Your task to perform on an android device: Go to wifi settings Image 0: 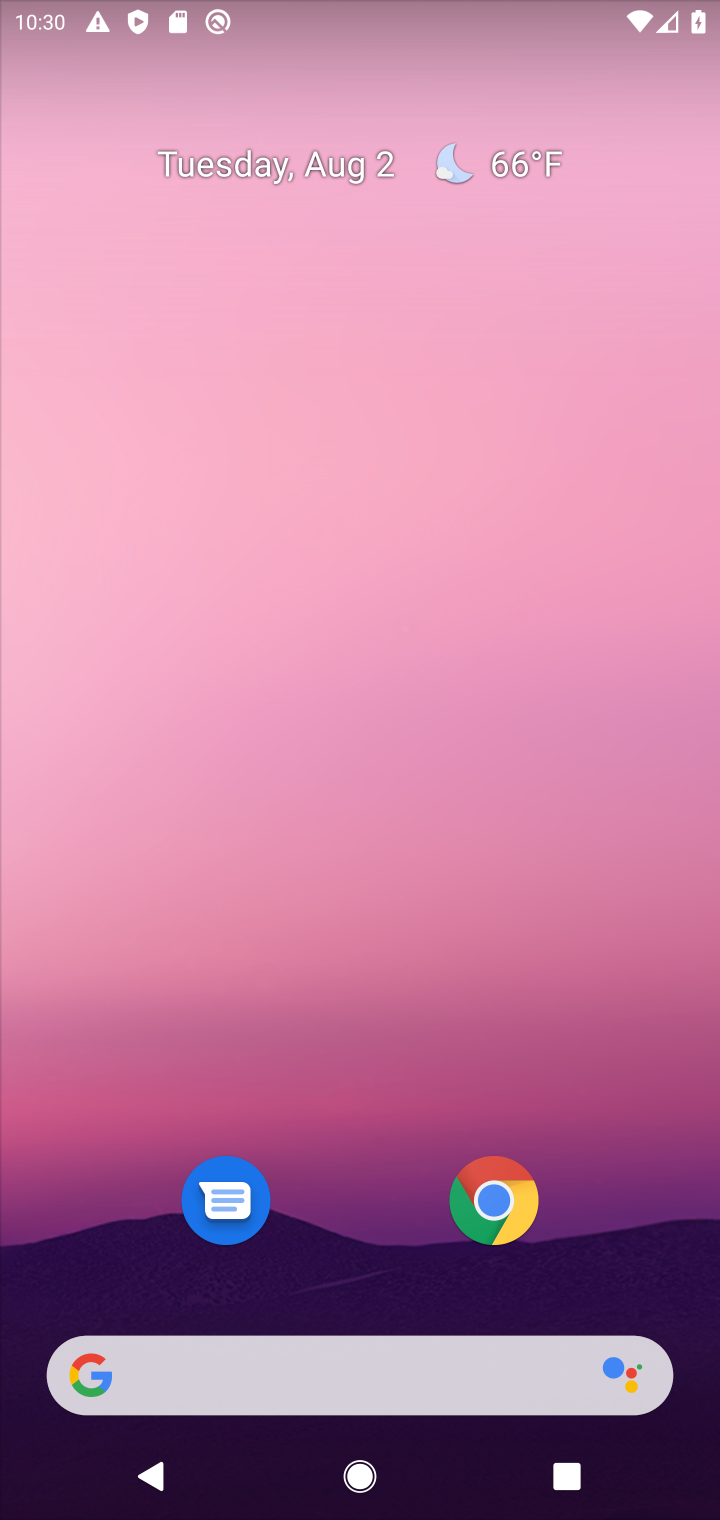
Step 0: drag from (673, 1292) to (550, 278)
Your task to perform on an android device: Go to wifi settings Image 1: 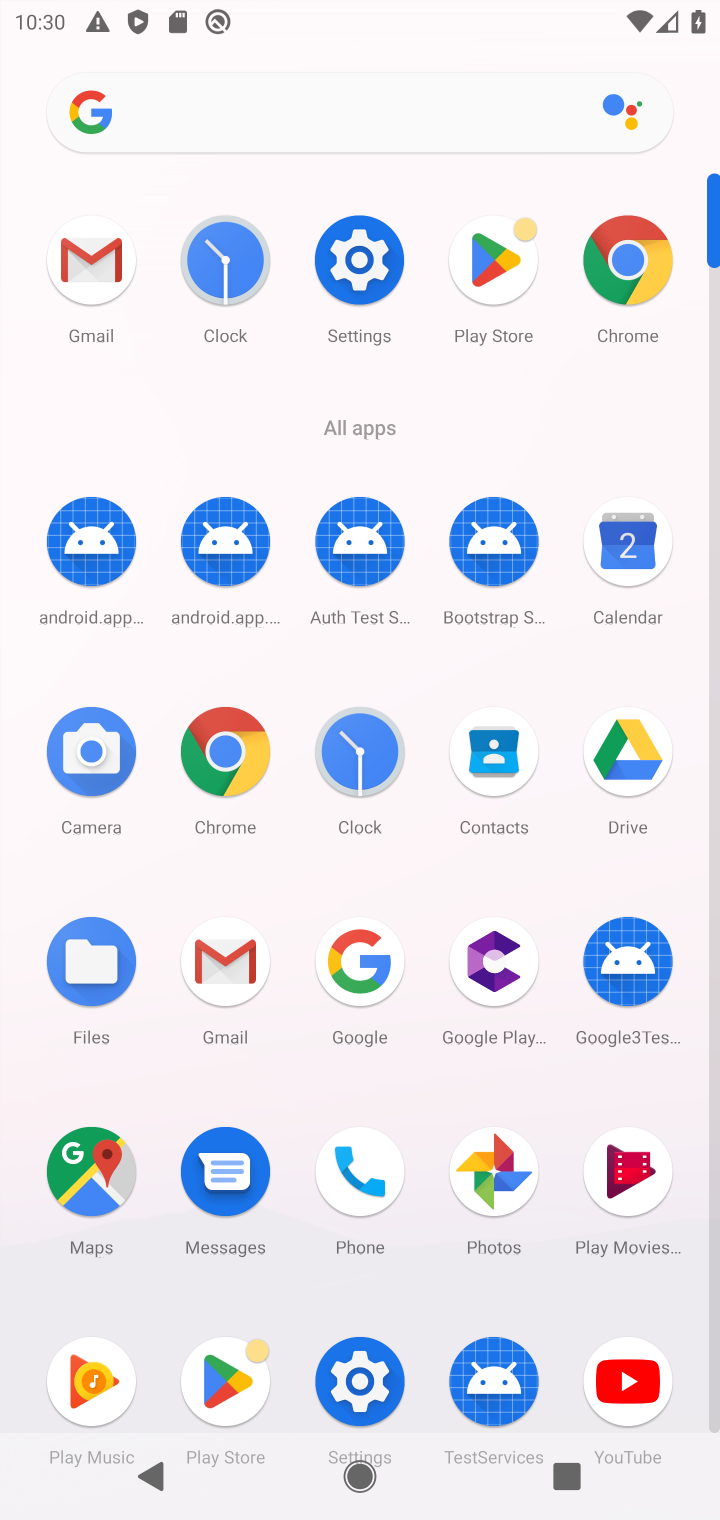
Step 1: click (361, 1384)
Your task to perform on an android device: Go to wifi settings Image 2: 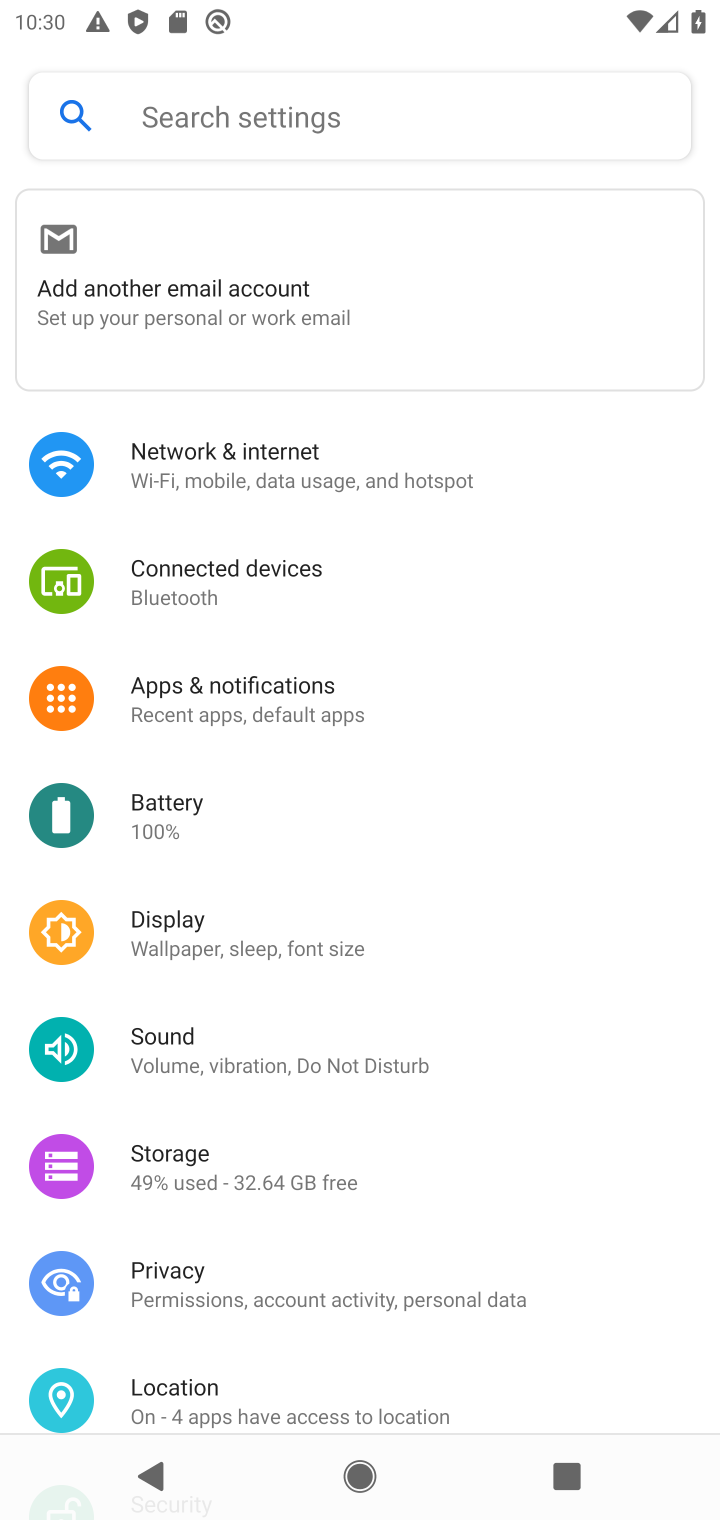
Step 2: click (204, 459)
Your task to perform on an android device: Go to wifi settings Image 3: 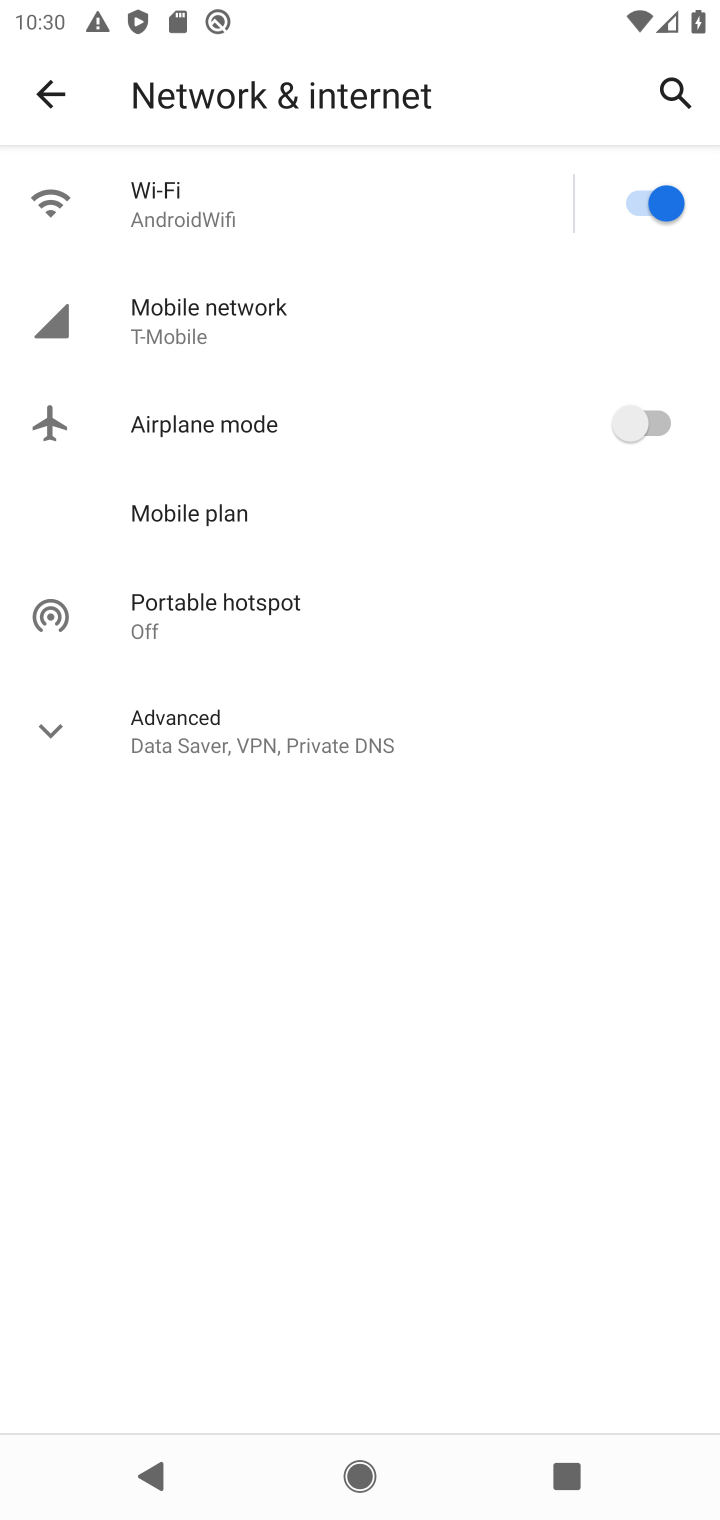
Step 3: click (126, 195)
Your task to perform on an android device: Go to wifi settings Image 4: 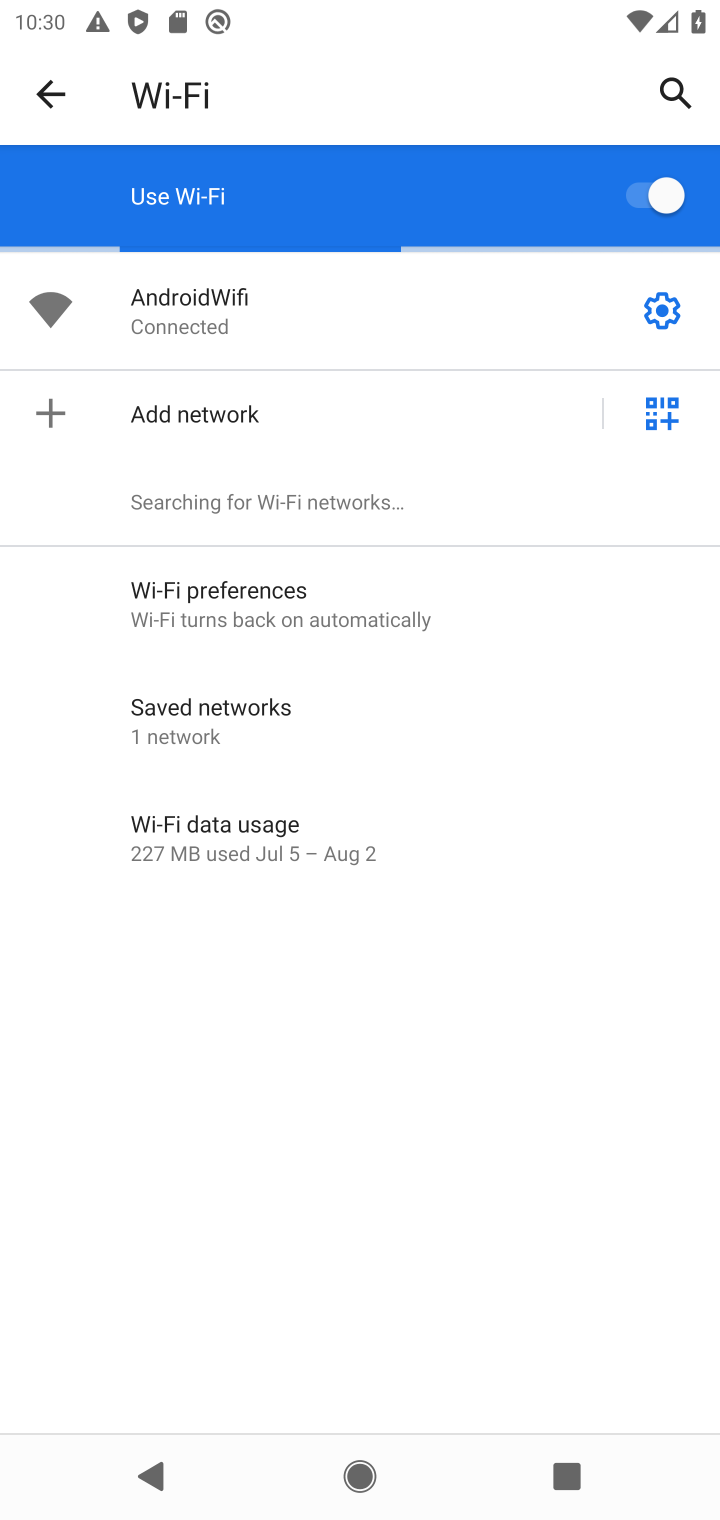
Step 4: click (660, 317)
Your task to perform on an android device: Go to wifi settings Image 5: 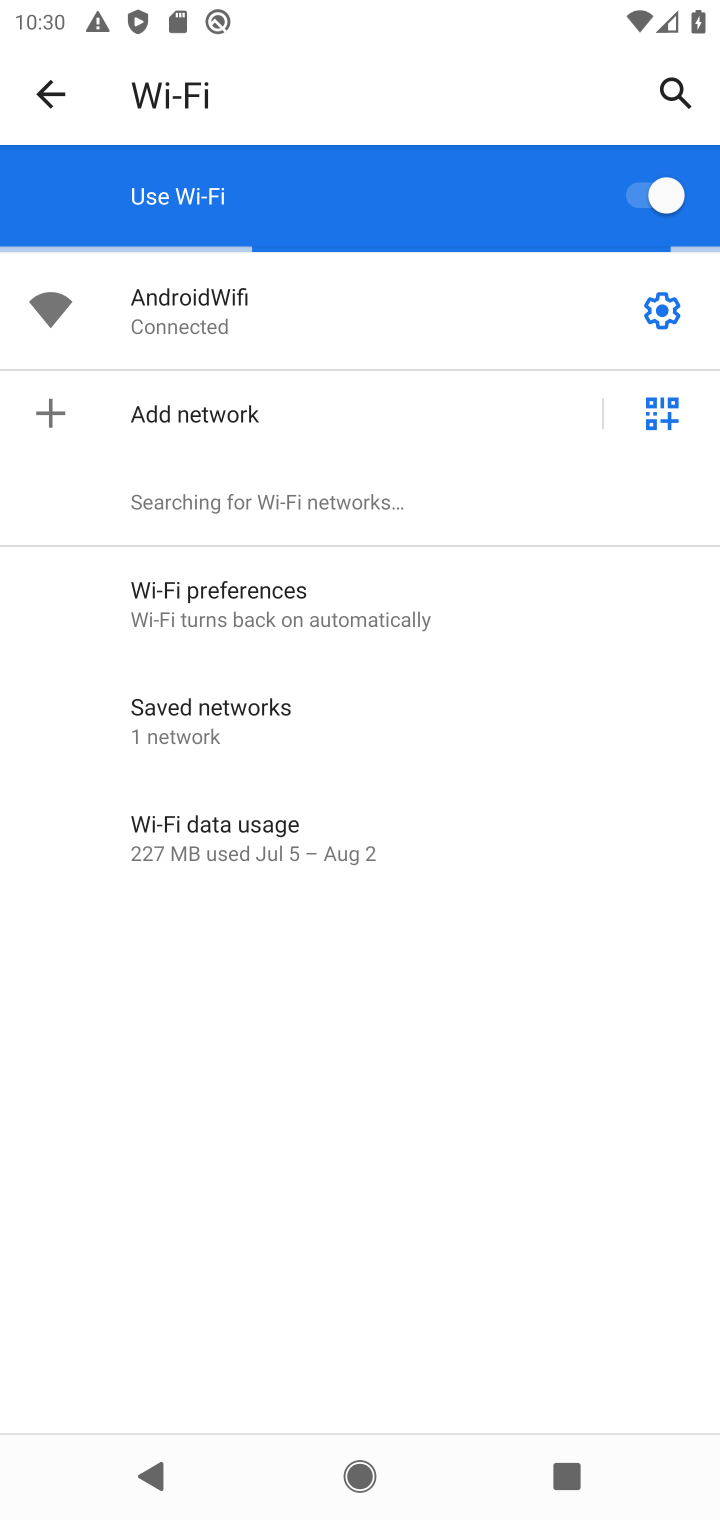
Step 5: click (664, 313)
Your task to perform on an android device: Go to wifi settings Image 6: 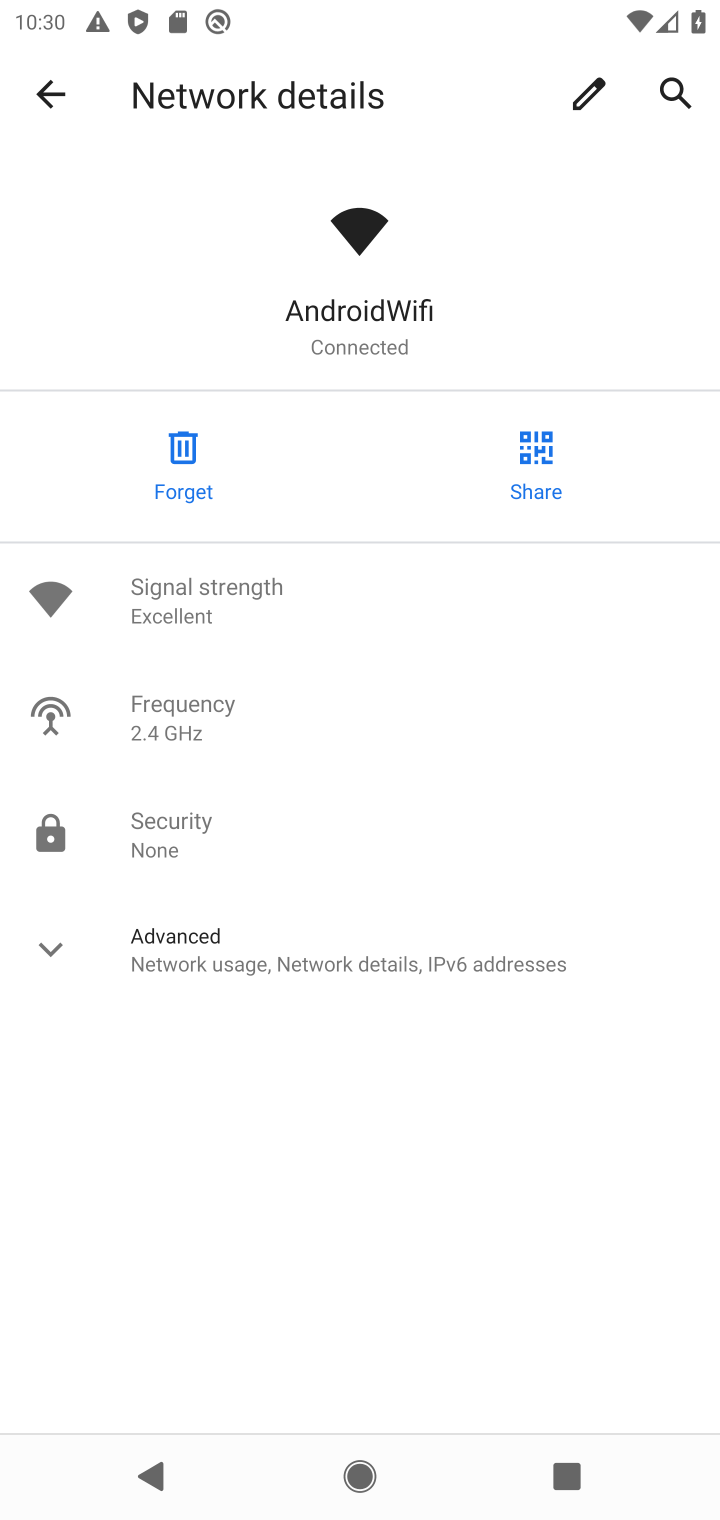
Step 6: task complete